Your task to perform on an android device: Nike Air Max 2020 shoes on Nike.com Image 0: 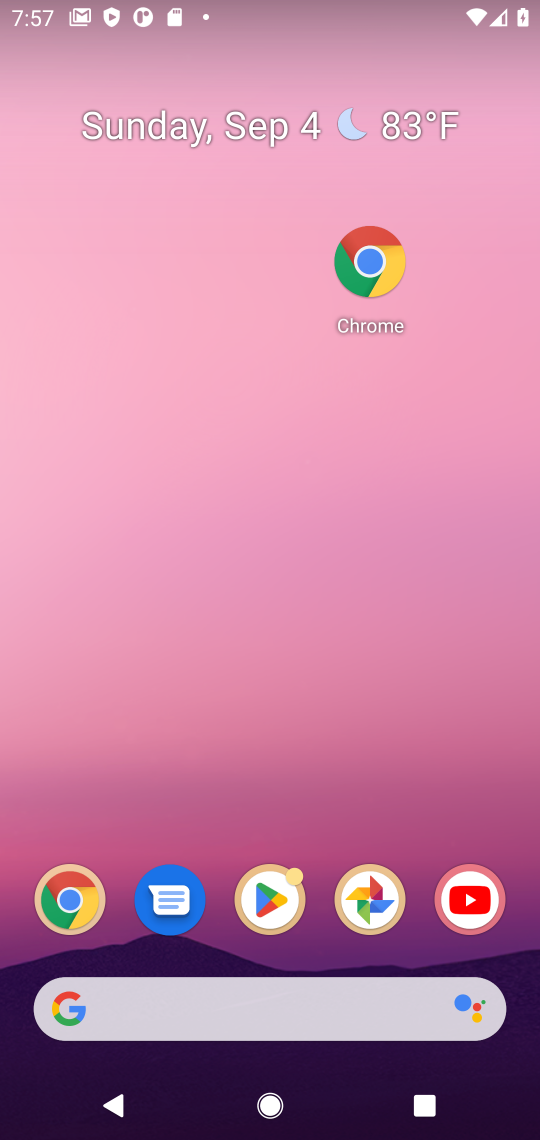
Step 0: click (351, 269)
Your task to perform on an android device: Nike Air Max 2020 shoes on Nike.com Image 1: 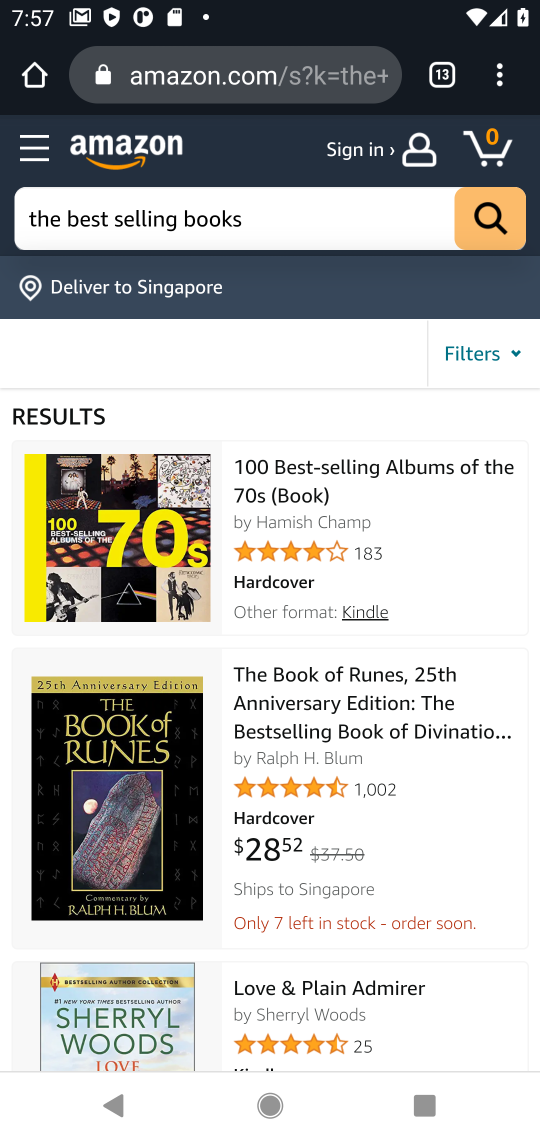
Step 1: click (446, 72)
Your task to perform on an android device: Nike Air Max 2020 shoes on Nike.com Image 2: 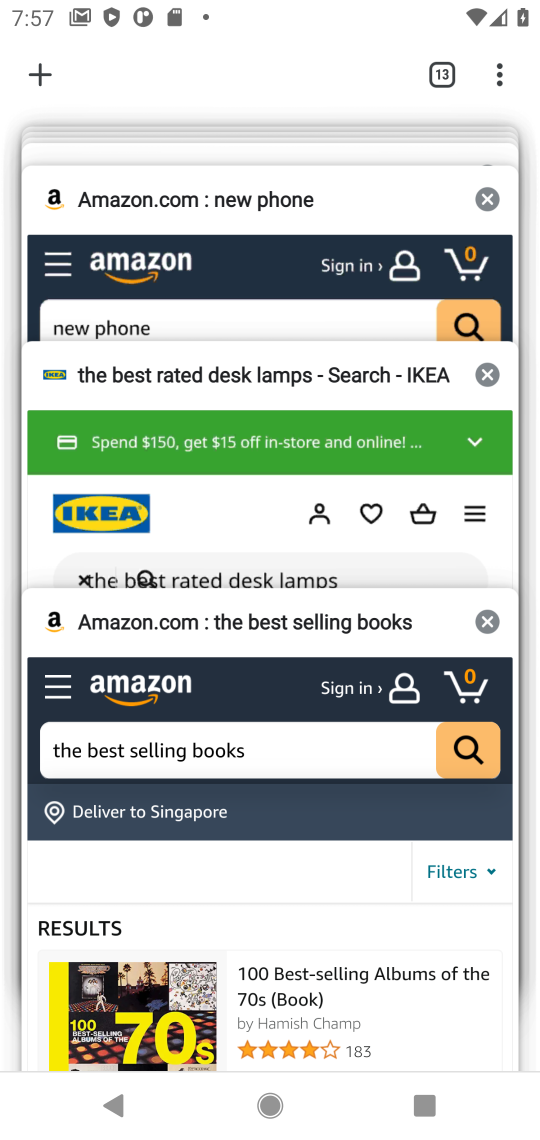
Step 2: click (33, 70)
Your task to perform on an android device: Nike Air Max 2020 shoes on Nike.com Image 3: 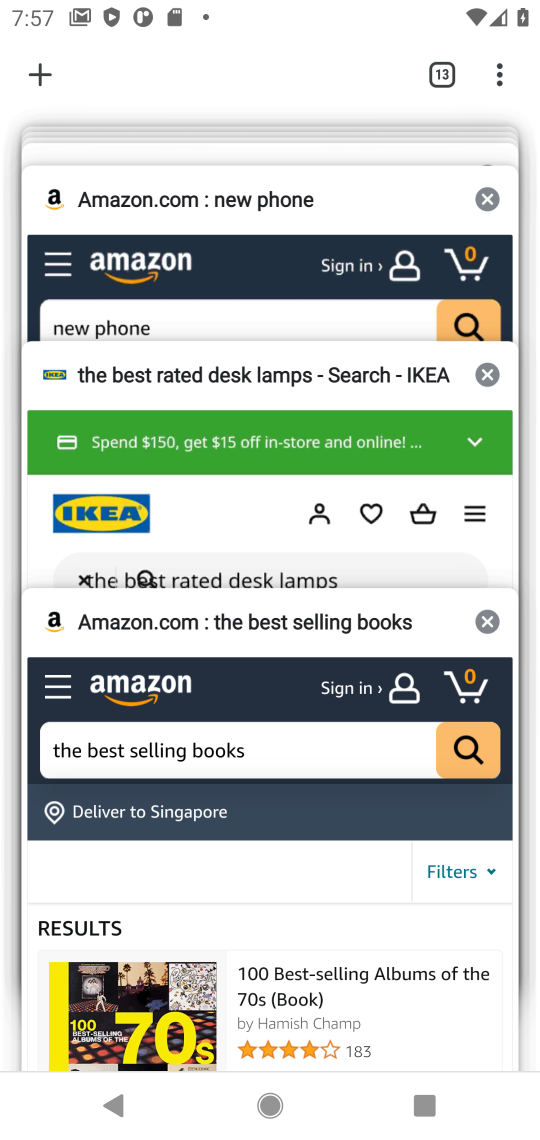
Step 3: click (33, 70)
Your task to perform on an android device: Nike Air Max 2020 shoes on Nike.com Image 4: 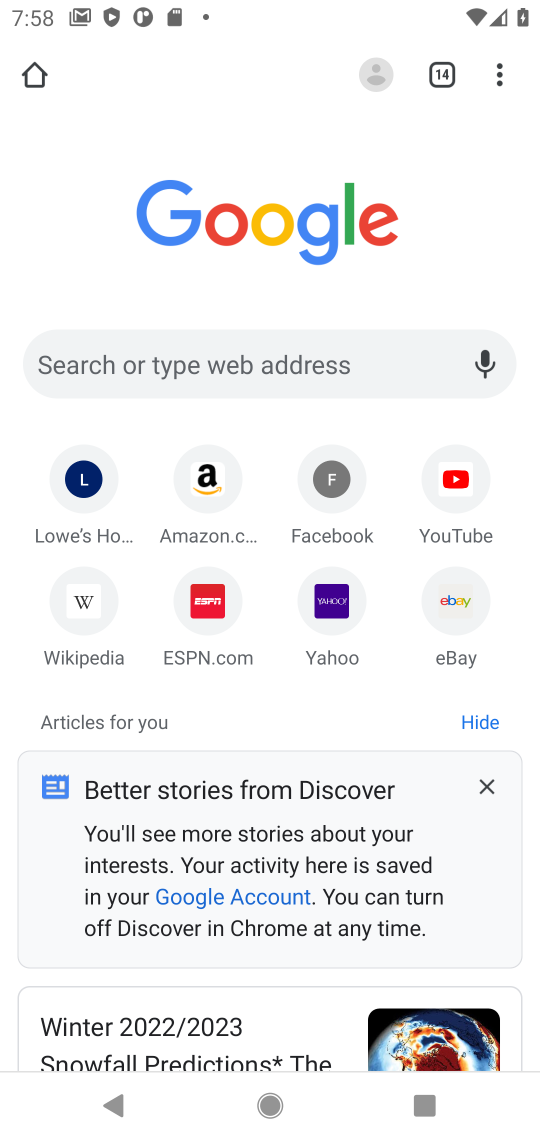
Step 4: click (248, 354)
Your task to perform on an android device: Nike Air Max 2020 shoes on Nike.com Image 5: 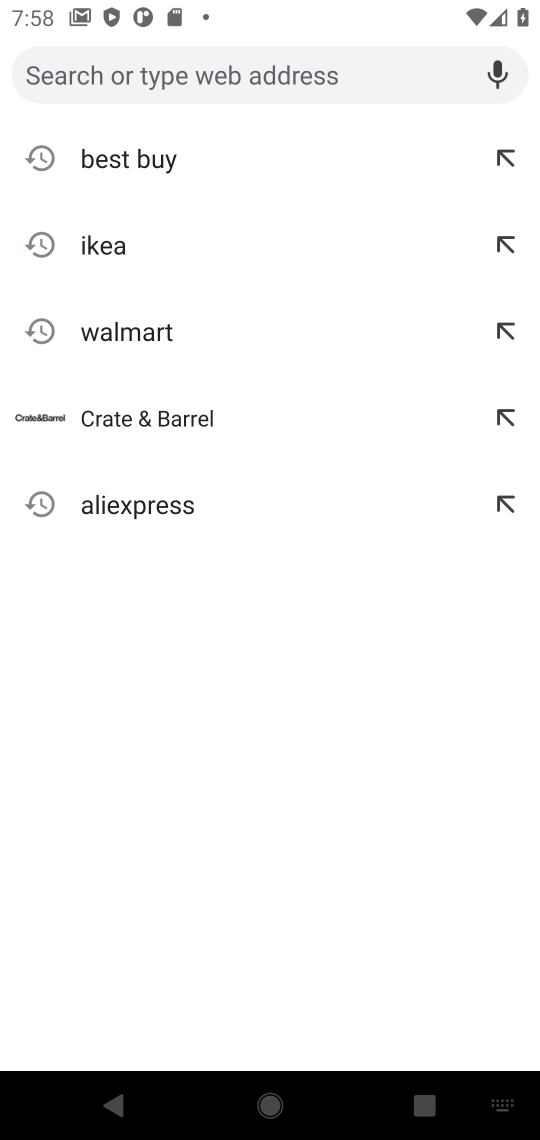
Step 5: type "nike"
Your task to perform on an android device: Nike Air Max 2020 shoes on Nike.com Image 6: 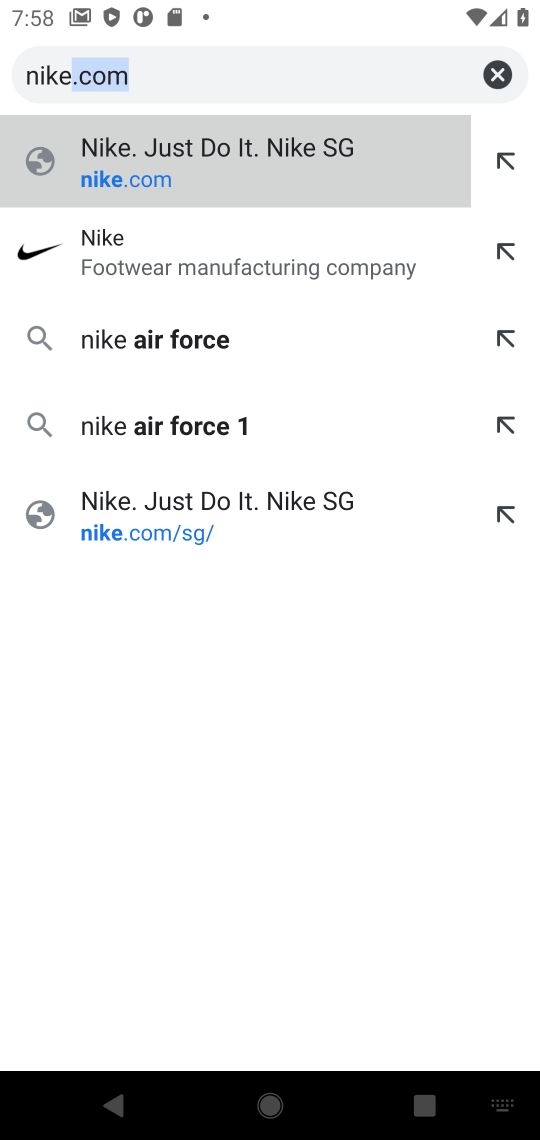
Step 6: click (217, 195)
Your task to perform on an android device: Nike Air Max 2020 shoes on Nike.com Image 7: 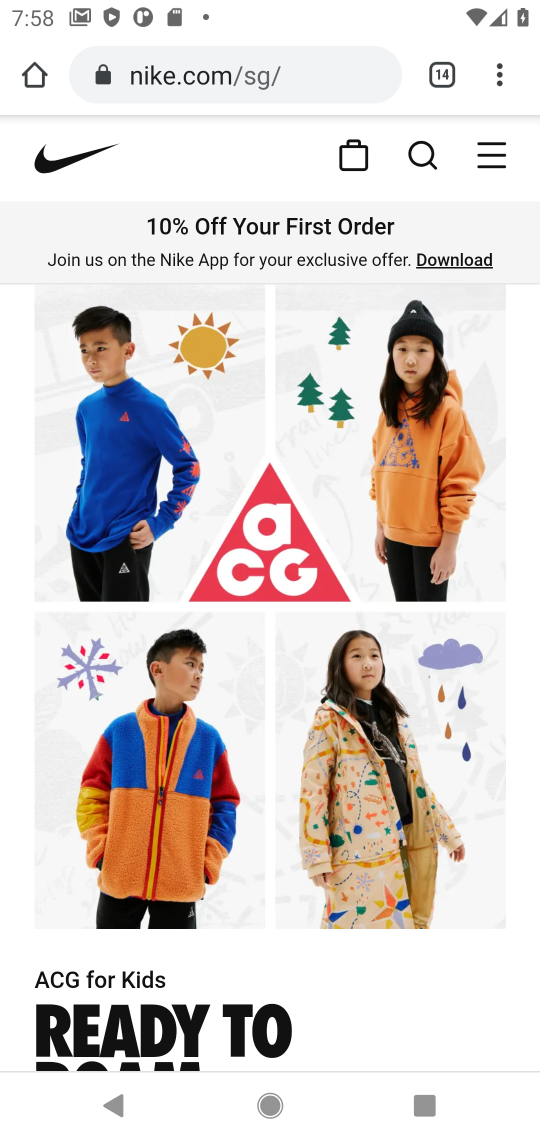
Step 7: click (417, 159)
Your task to perform on an android device: Nike Air Max 2020 shoes on Nike.com Image 8: 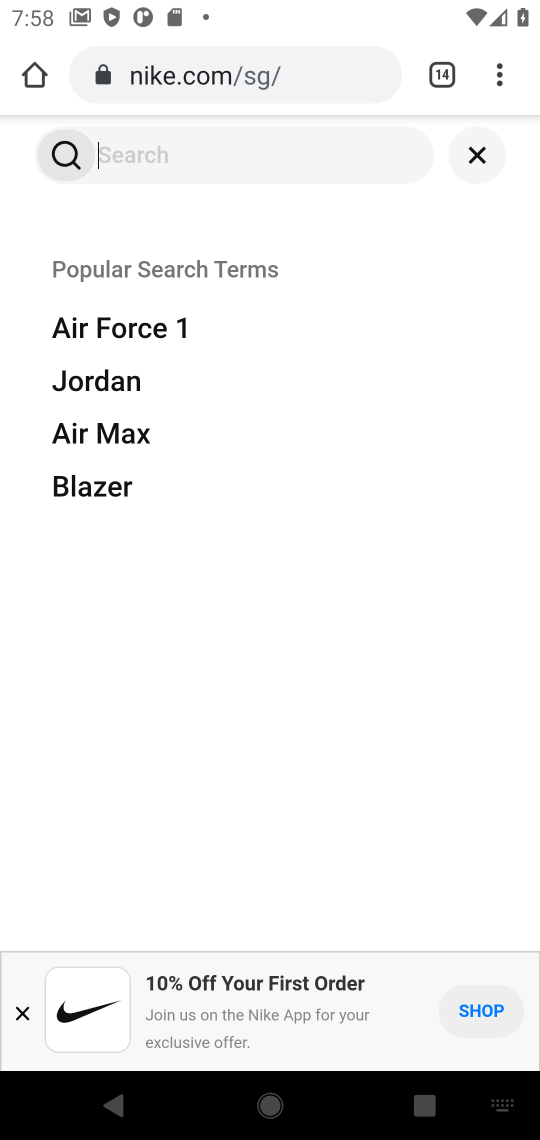
Step 8: type " Air Max 2020"
Your task to perform on an android device: Nike Air Max 2020 shoes on Nike.com Image 9: 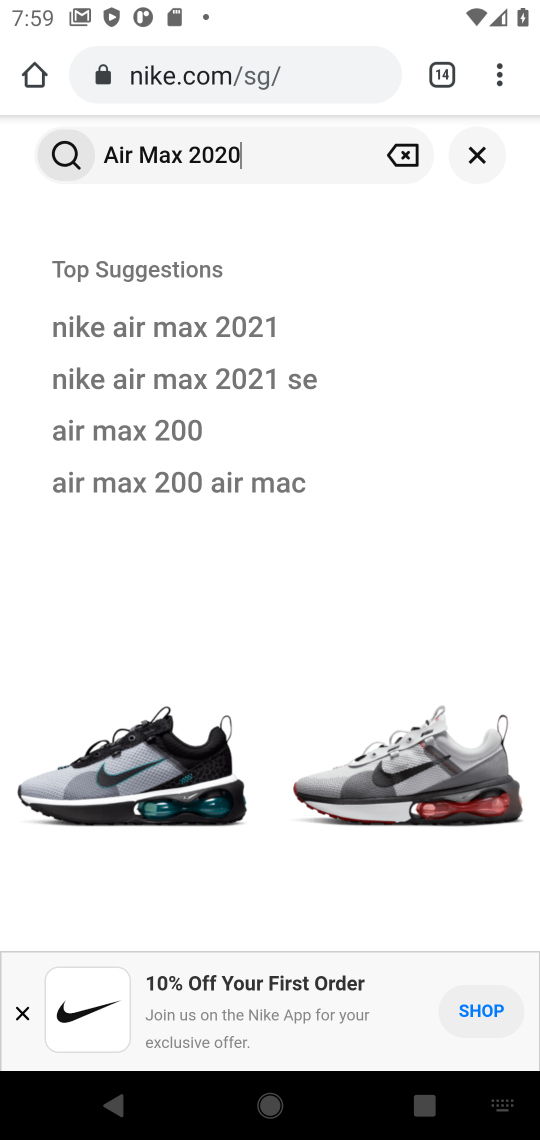
Step 9: click (25, 1008)
Your task to perform on an android device: Nike Air Max 2020 shoes on Nike.com Image 10: 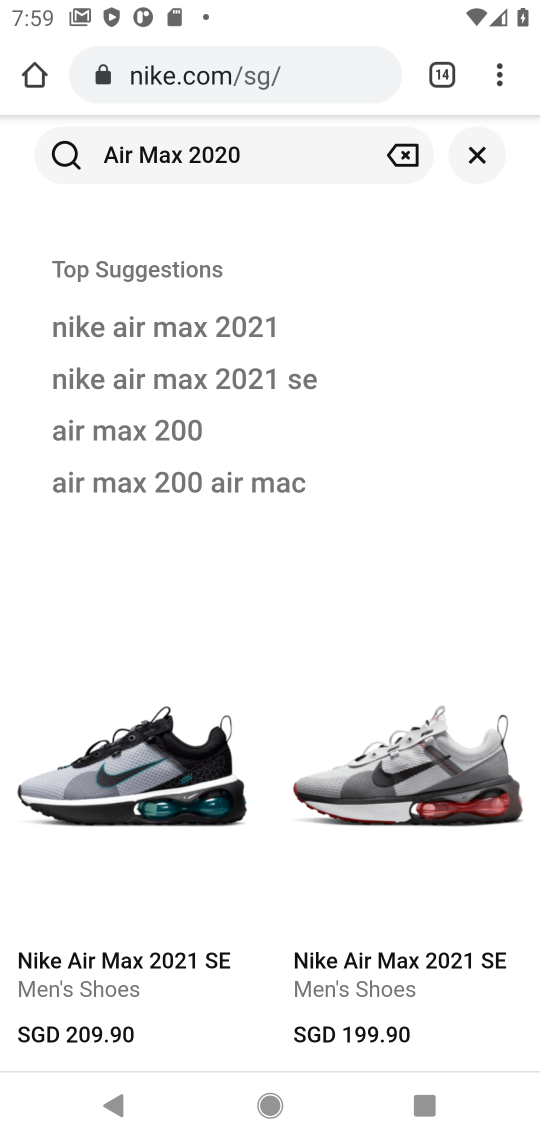
Step 10: click (58, 147)
Your task to perform on an android device: Nike Air Max 2020 shoes on Nike.com Image 11: 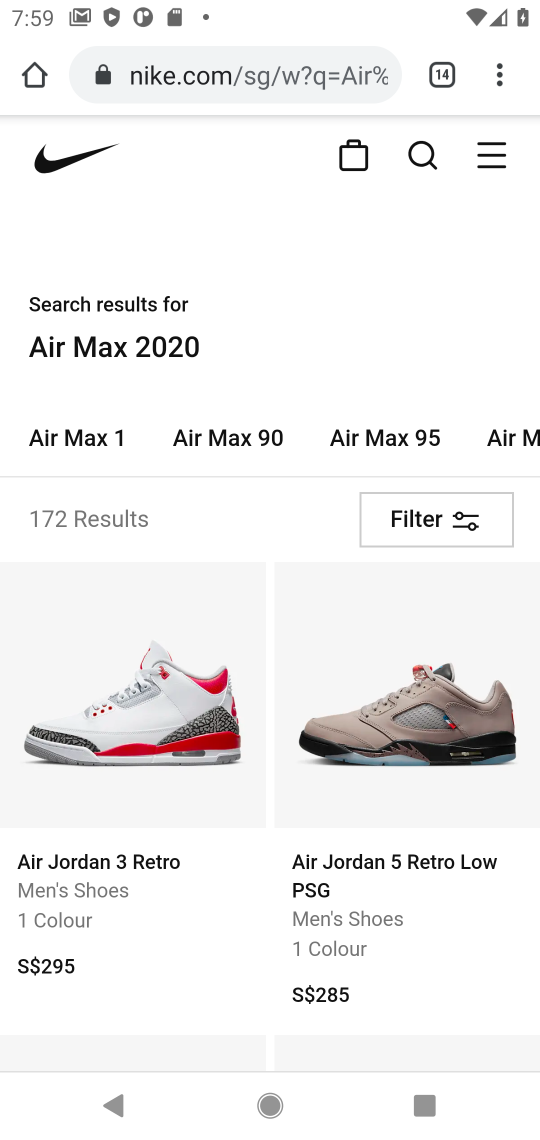
Step 11: task complete